Your task to perform on an android device: Go to network settings Image 0: 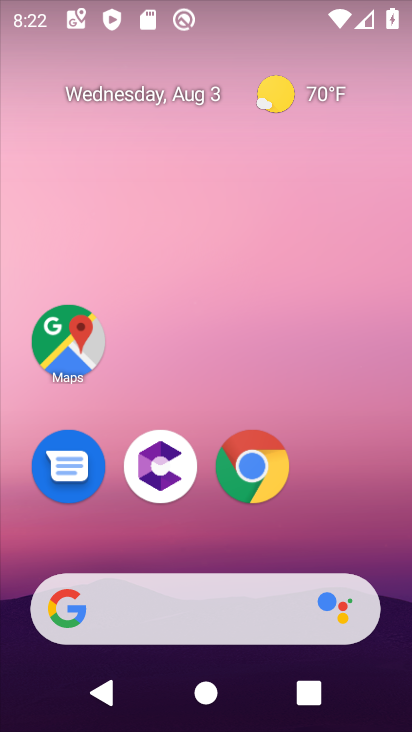
Step 0: drag from (346, 490) to (362, 204)
Your task to perform on an android device: Go to network settings Image 1: 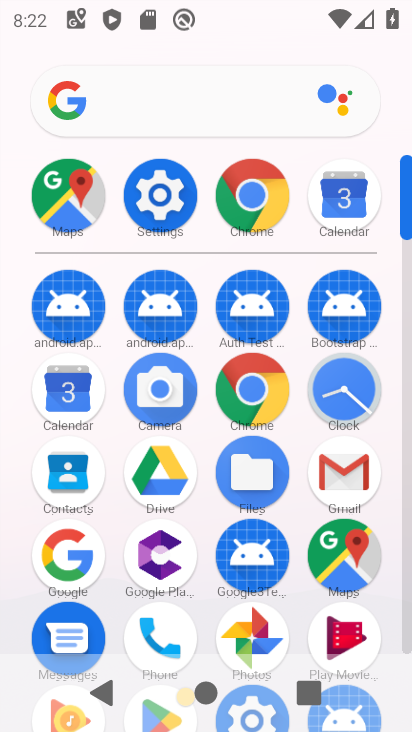
Step 1: click (159, 180)
Your task to perform on an android device: Go to network settings Image 2: 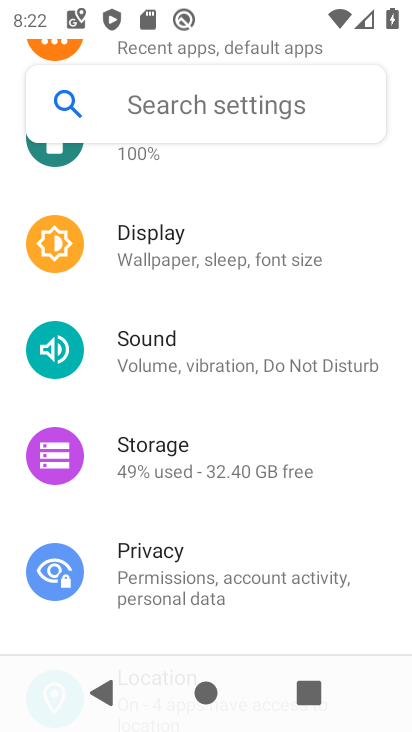
Step 2: drag from (320, 185) to (367, 590)
Your task to perform on an android device: Go to network settings Image 3: 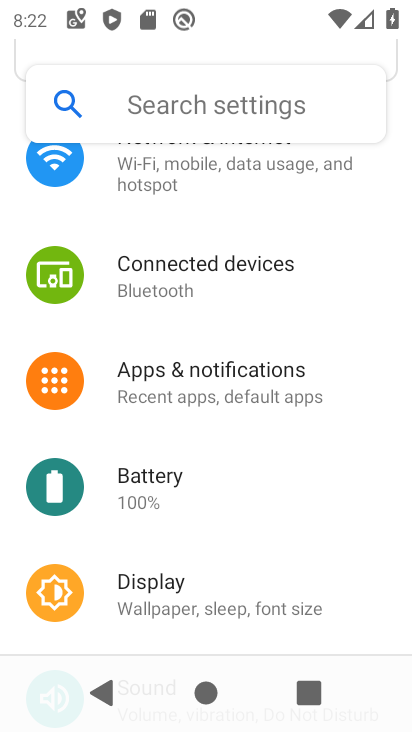
Step 3: click (257, 180)
Your task to perform on an android device: Go to network settings Image 4: 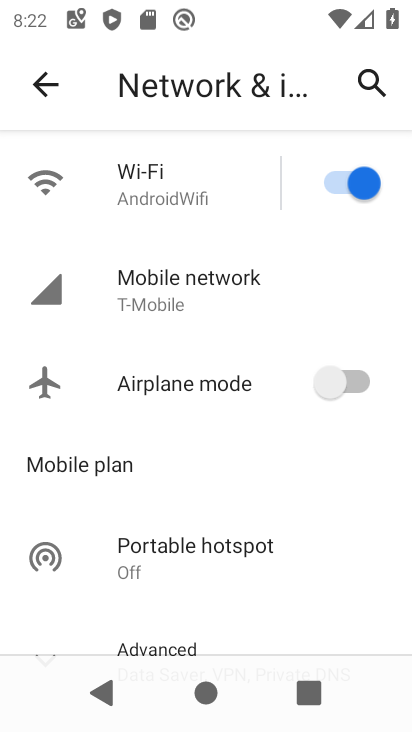
Step 4: task complete